Your task to perform on an android device: set an alarm Image 0: 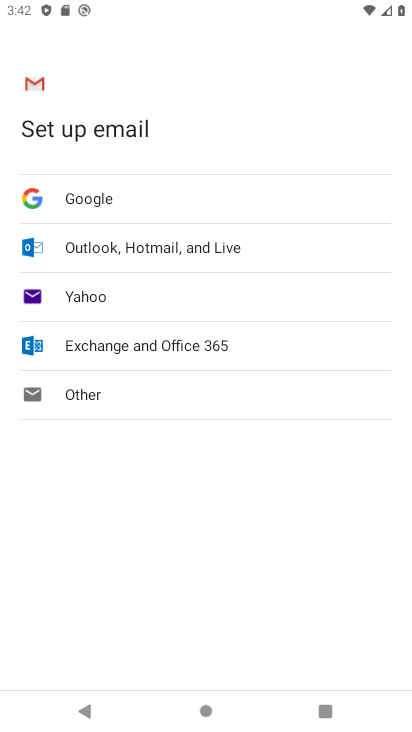
Step 0: press home button
Your task to perform on an android device: set an alarm Image 1: 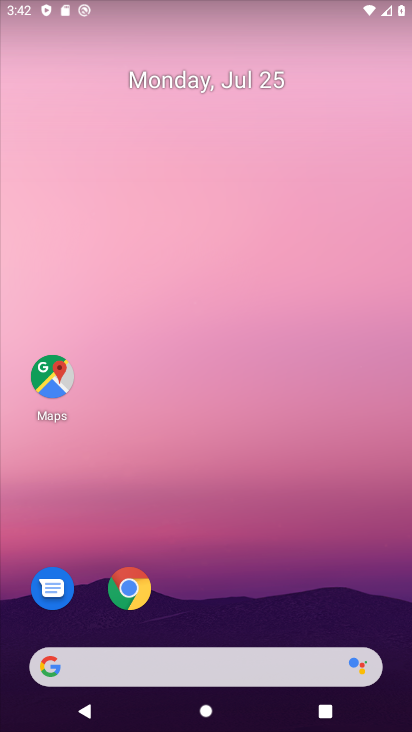
Step 1: drag from (231, 721) to (248, 159)
Your task to perform on an android device: set an alarm Image 2: 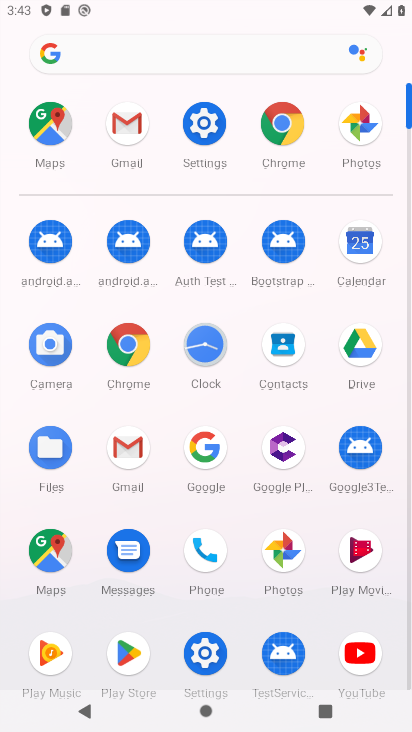
Step 2: click (212, 348)
Your task to perform on an android device: set an alarm Image 3: 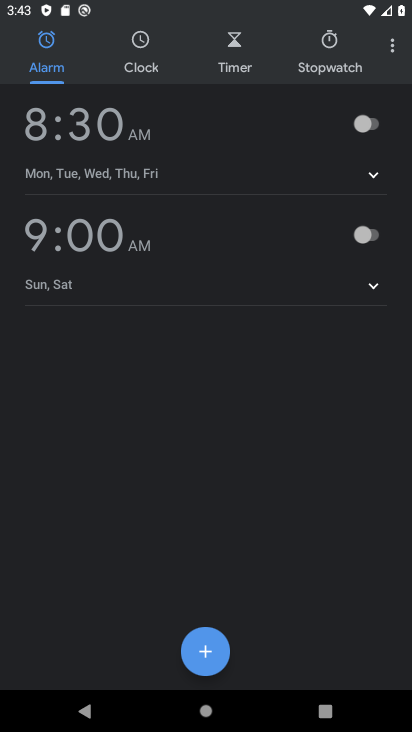
Step 3: click (202, 657)
Your task to perform on an android device: set an alarm Image 4: 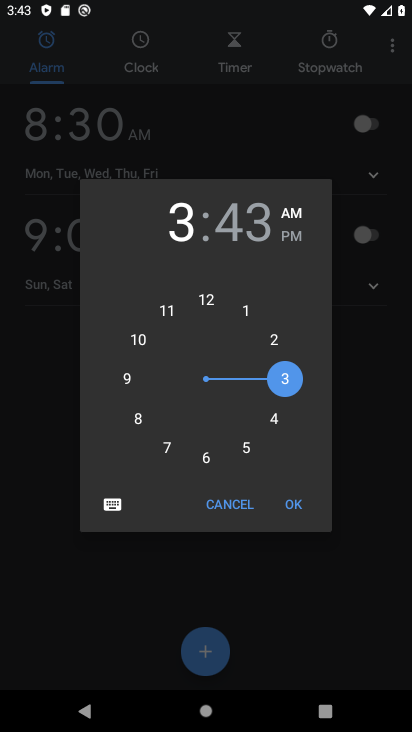
Step 4: click (167, 447)
Your task to perform on an android device: set an alarm Image 5: 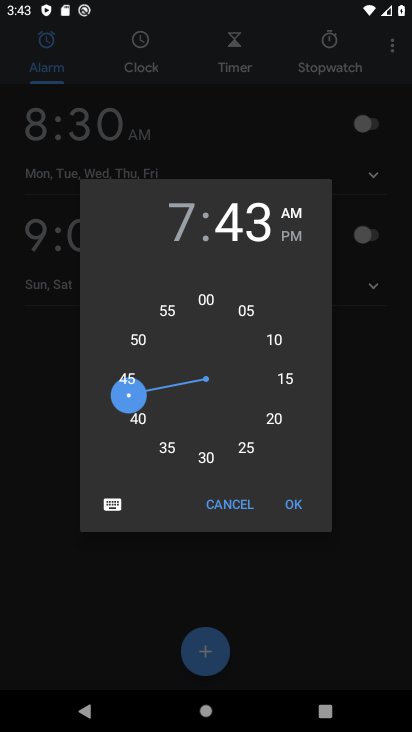
Step 5: click (297, 503)
Your task to perform on an android device: set an alarm Image 6: 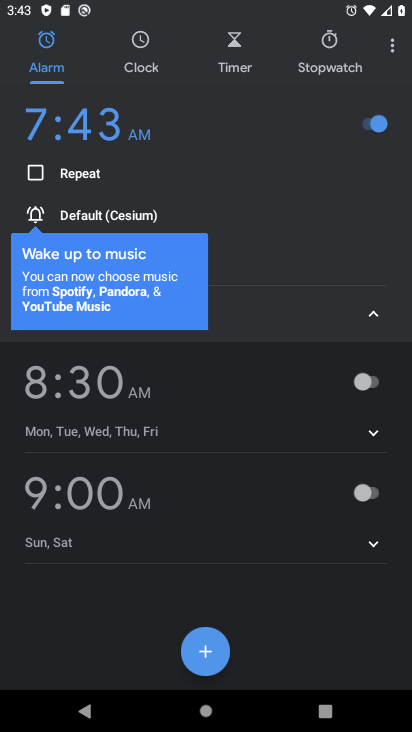
Step 6: task complete